Your task to perform on an android device: add a label to a message in the gmail app Image 0: 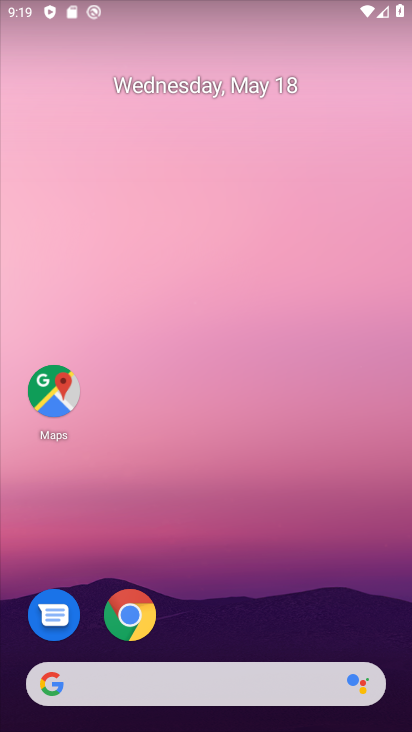
Step 0: drag from (266, 608) to (245, 133)
Your task to perform on an android device: add a label to a message in the gmail app Image 1: 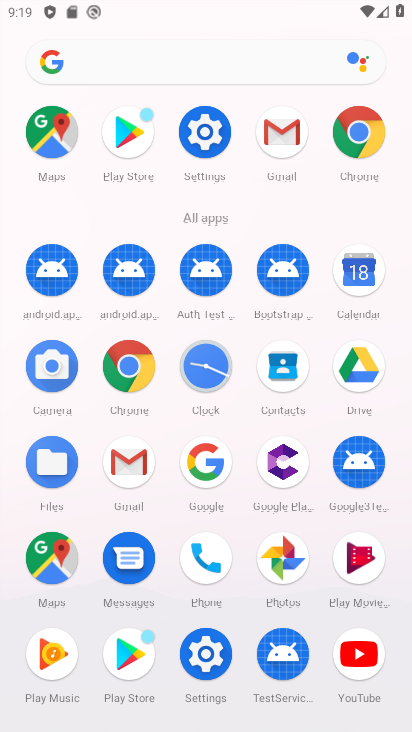
Step 1: click (286, 133)
Your task to perform on an android device: add a label to a message in the gmail app Image 2: 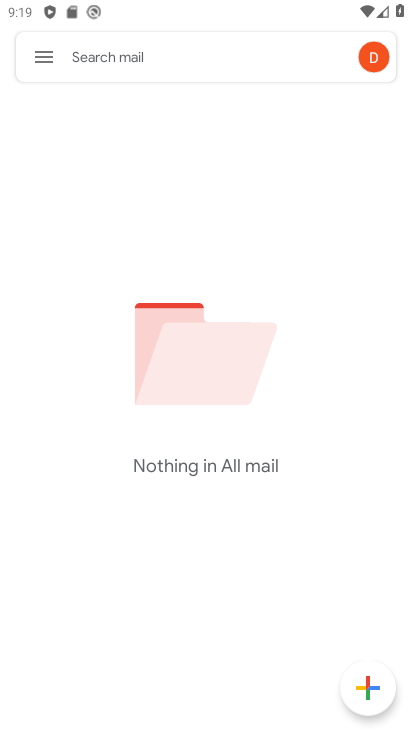
Step 2: click (41, 52)
Your task to perform on an android device: add a label to a message in the gmail app Image 3: 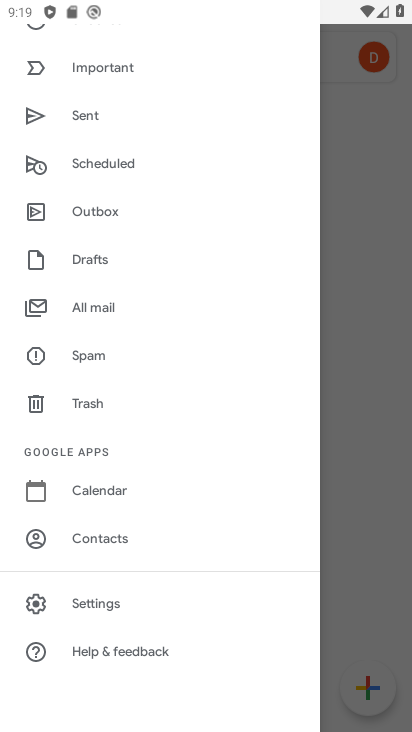
Step 3: drag from (149, 218) to (164, 319)
Your task to perform on an android device: add a label to a message in the gmail app Image 4: 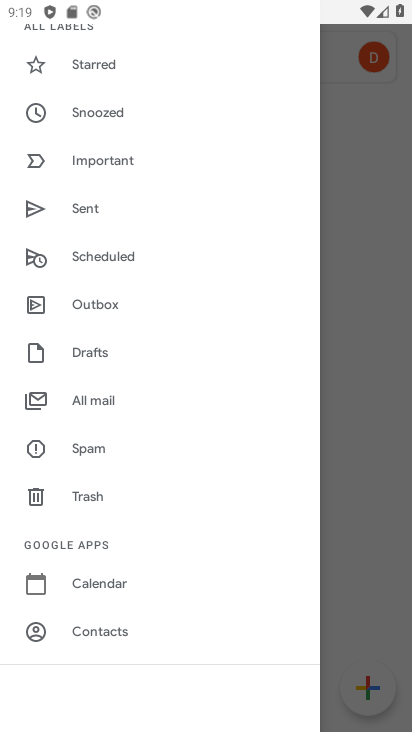
Step 4: click (123, 397)
Your task to perform on an android device: add a label to a message in the gmail app Image 5: 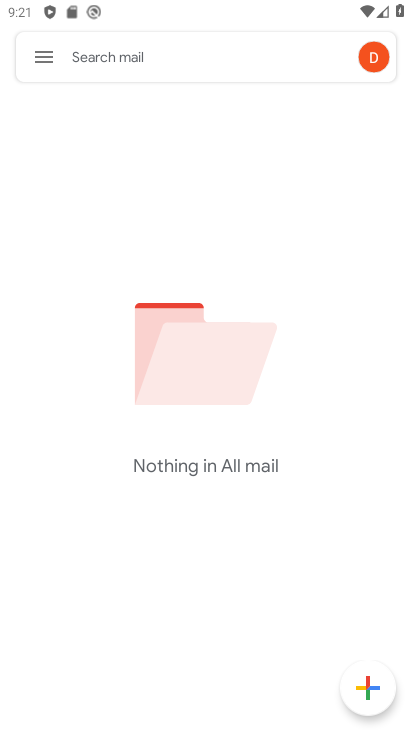
Step 5: task complete